Your task to perform on an android device: Open the web browser Image 0: 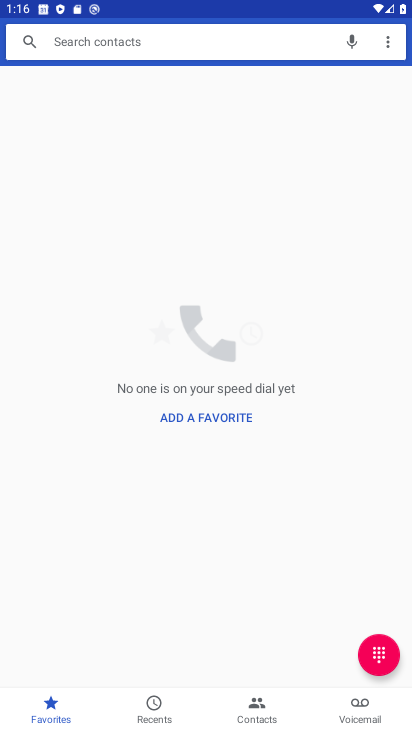
Step 0: press home button
Your task to perform on an android device: Open the web browser Image 1: 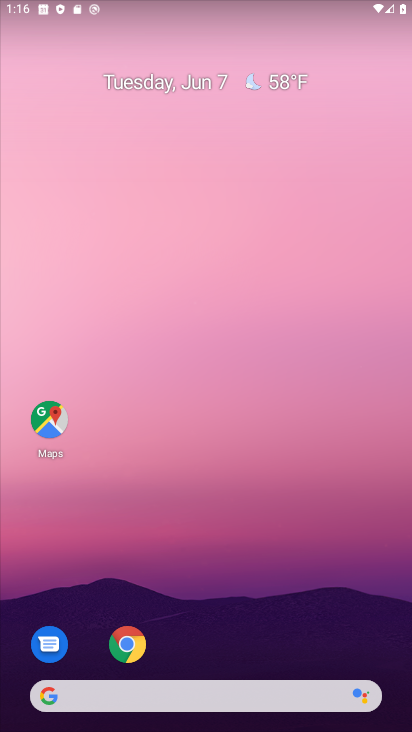
Step 1: click (131, 650)
Your task to perform on an android device: Open the web browser Image 2: 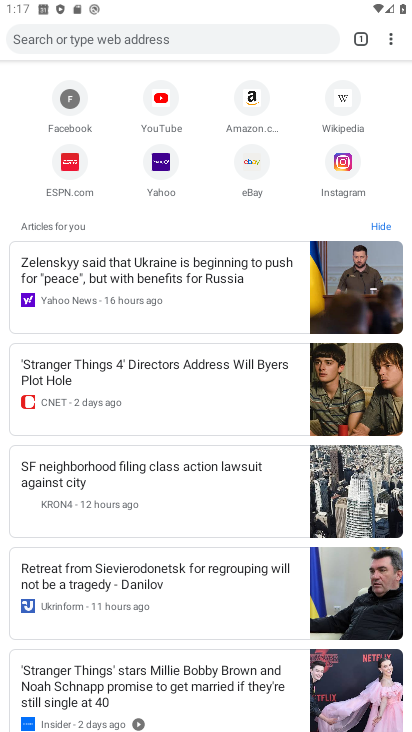
Step 2: task complete